Your task to perform on an android device: Open Yahoo.com Image 0: 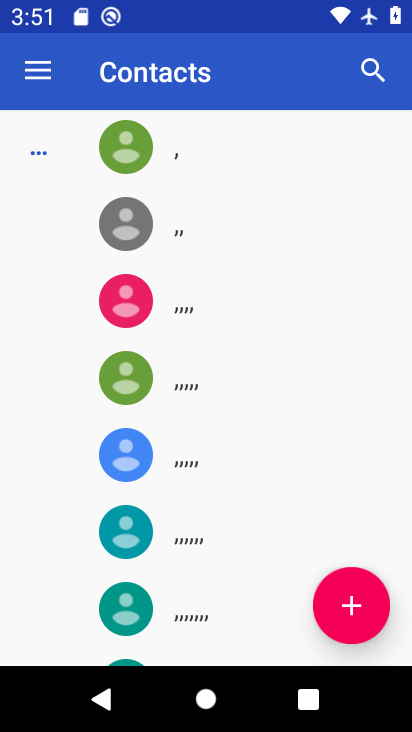
Step 0: press home button
Your task to perform on an android device: Open Yahoo.com Image 1: 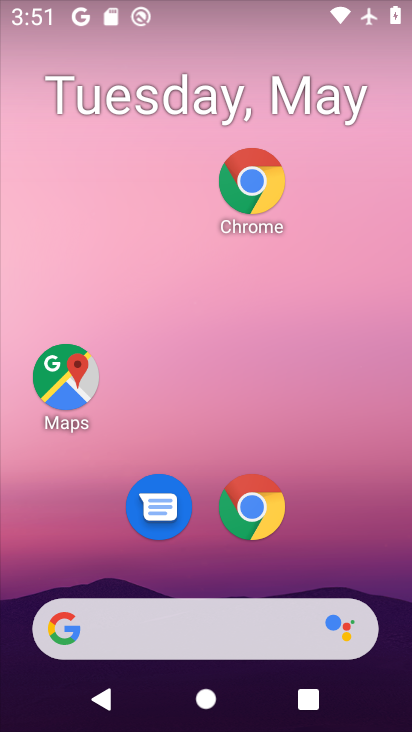
Step 1: click (268, 496)
Your task to perform on an android device: Open Yahoo.com Image 2: 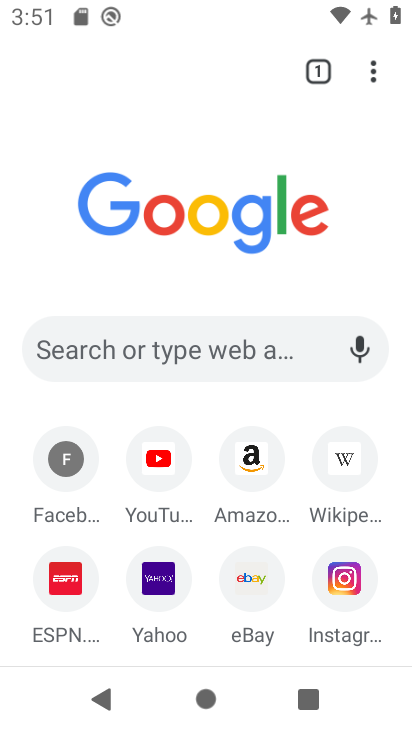
Step 2: click (137, 572)
Your task to perform on an android device: Open Yahoo.com Image 3: 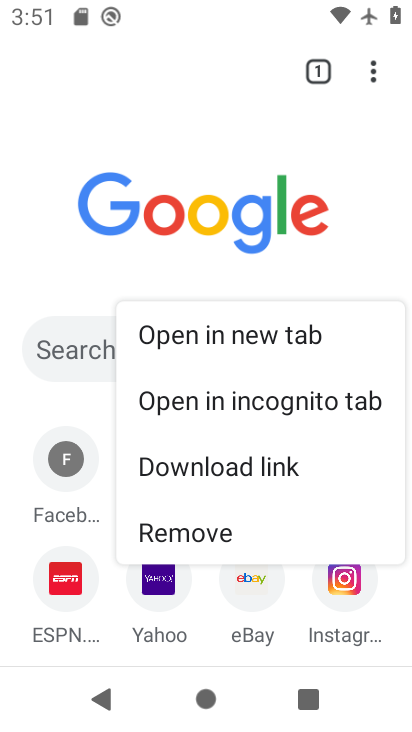
Step 3: click (157, 592)
Your task to perform on an android device: Open Yahoo.com Image 4: 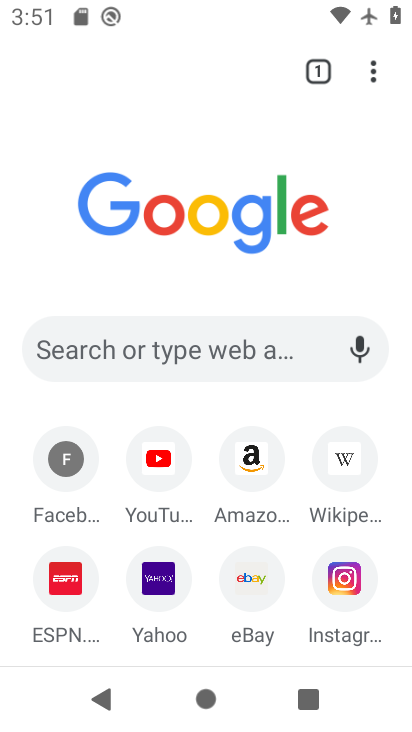
Step 4: click (158, 589)
Your task to perform on an android device: Open Yahoo.com Image 5: 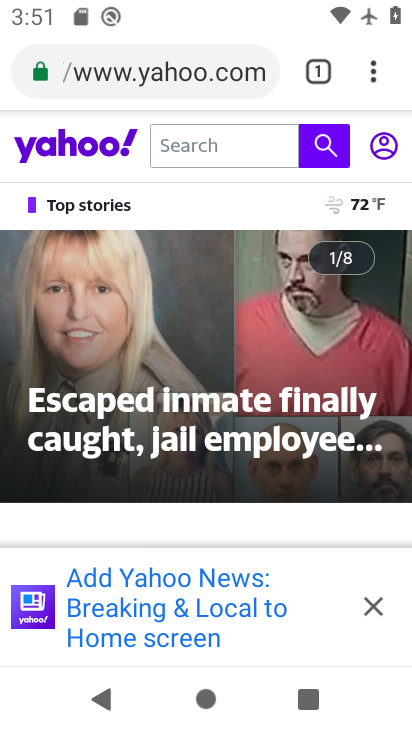
Step 5: task complete